Your task to perform on an android device: uninstall "Messages" Image 0: 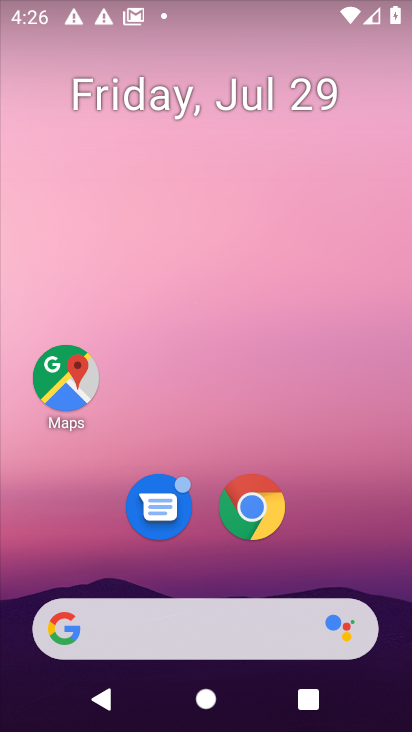
Step 0: click (162, 507)
Your task to perform on an android device: uninstall "Messages" Image 1: 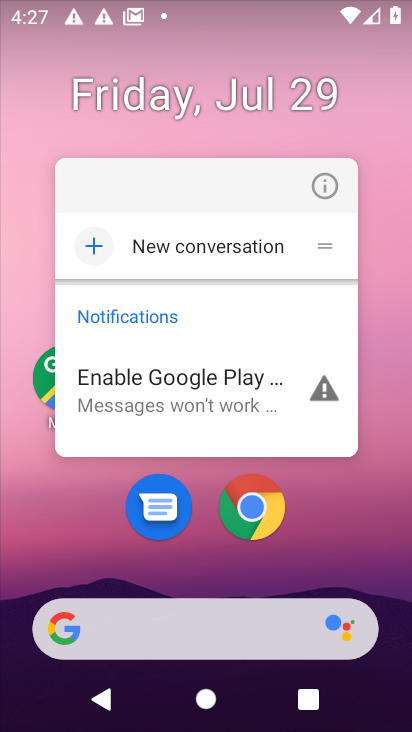
Step 1: click (327, 184)
Your task to perform on an android device: uninstall "Messages" Image 2: 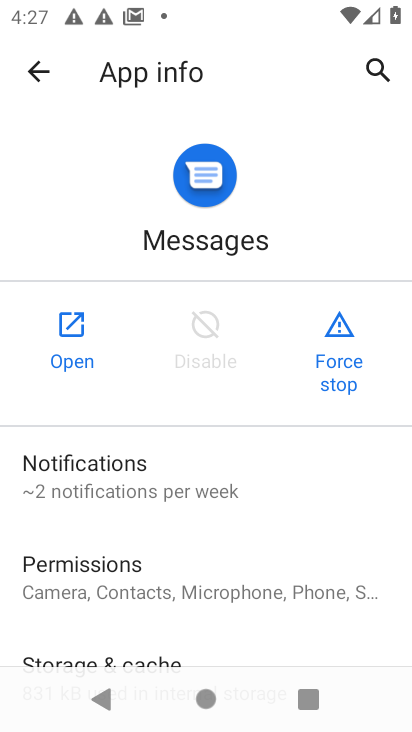
Step 2: task complete